Your task to perform on an android device: Do I have any events this weekend? Image 0: 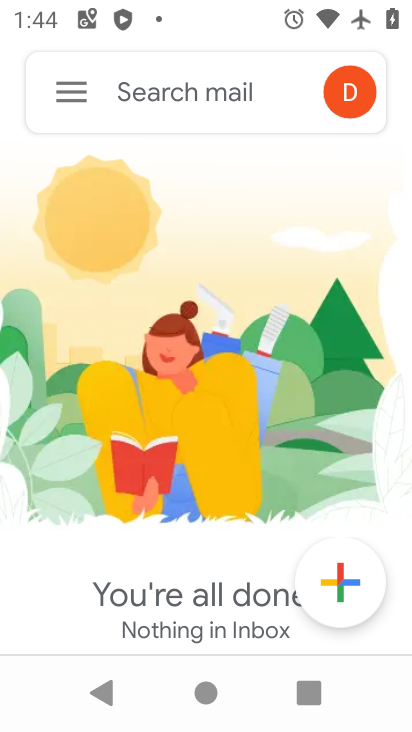
Step 0: press home button
Your task to perform on an android device: Do I have any events this weekend? Image 1: 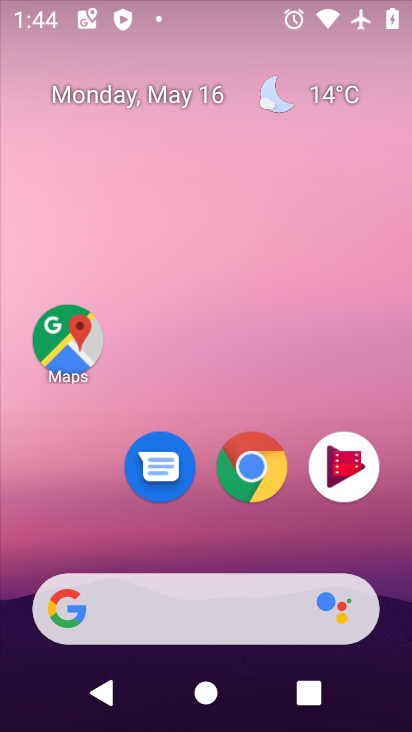
Step 1: drag from (182, 456) to (209, 198)
Your task to perform on an android device: Do I have any events this weekend? Image 2: 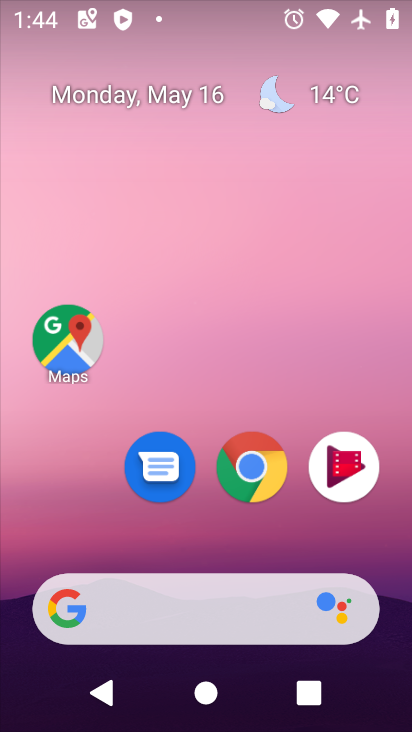
Step 2: drag from (179, 558) to (231, 245)
Your task to perform on an android device: Do I have any events this weekend? Image 3: 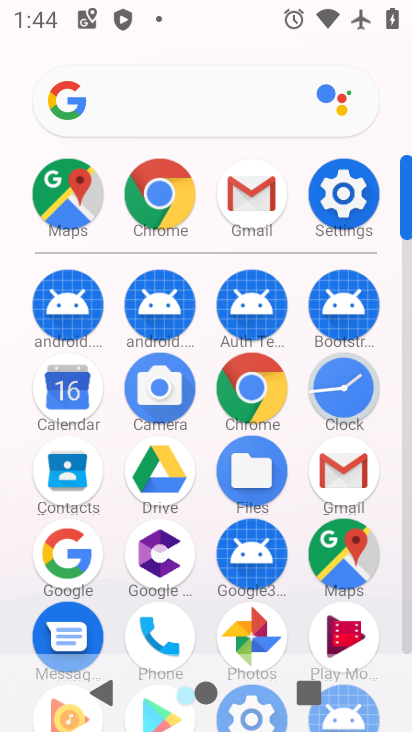
Step 3: drag from (194, 559) to (208, 405)
Your task to perform on an android device: Do I have any events this weekend? Image 4: 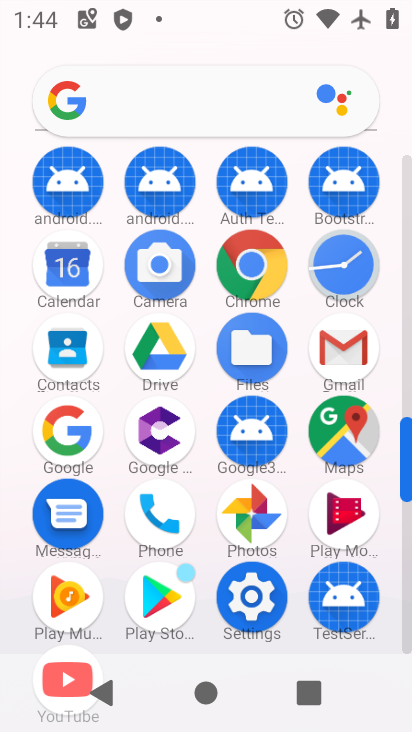
Step 4: click (72, 249)
Your task to perform on an android device: Do I have any events this weekend? Image 5: 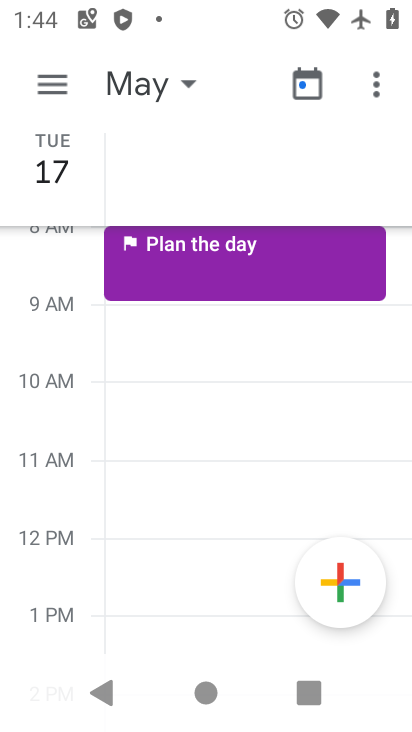
Step 5: click (52, 85)
Your task to perform on an android device: Do I have any events this weekend? Image 6: 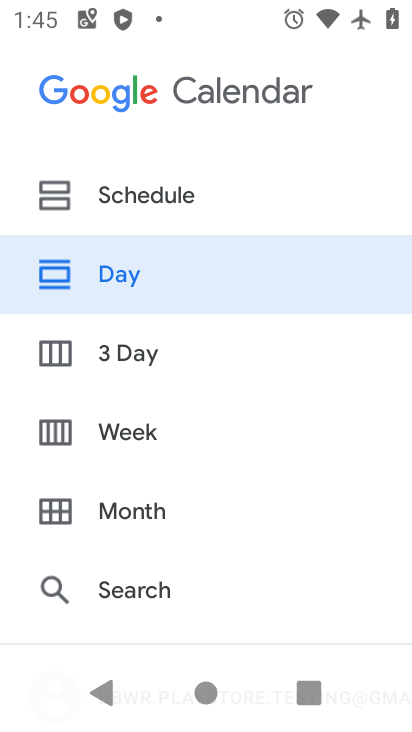
Step 6: click (152, 503)
Your task to perform on an android device: Do I have any events this weekend? Image 7: 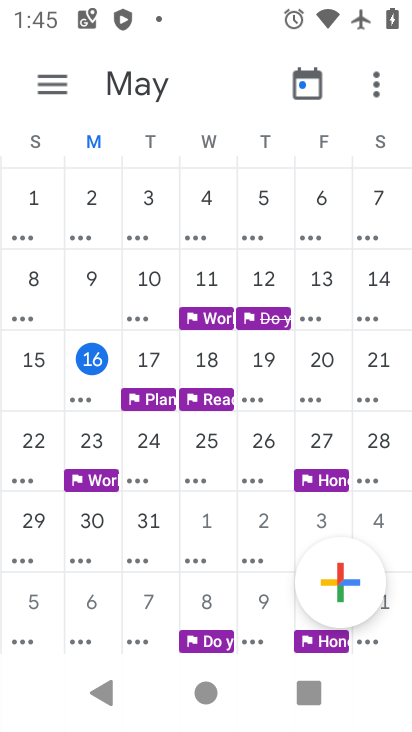
Step 7: click (211, 365)
Your task to perform on an android device: Do I have any events this weekend? Image 8: 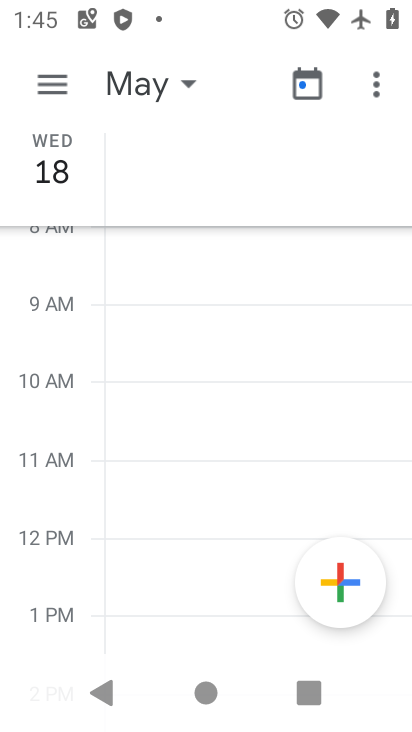
Step 8: task complete